Your task to perform on an android device: Find coffee shops on Maps Image 0: 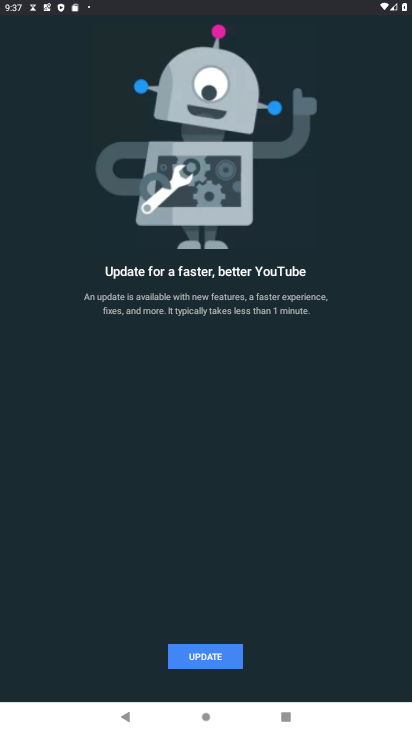
Step 0: press home button
Your task to perform on an android device: Find coffee shops on Maps Image 1: 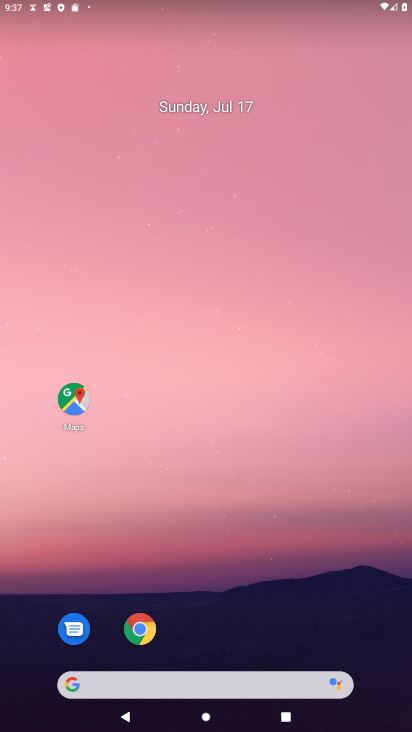
Step 1: drag from (238, 698) to (234, 55)
Your task to perform on an android device: Find coffee shops on Maps Image 2: 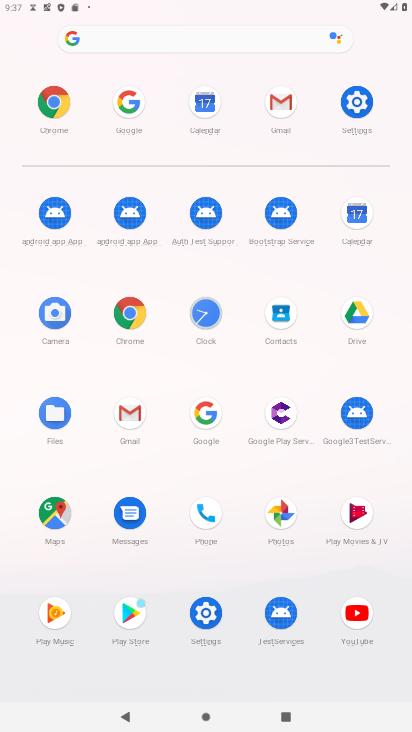
Step 2: click (55, 517)
Your task to perform on an android device: Find coffee shops on Maps Image 3: 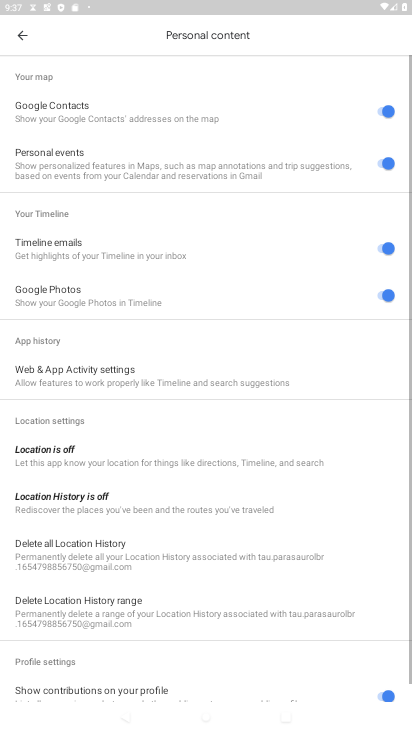
Step 3: click (23, 32)
Your task to perform on an android device: Find coffee shops on Maps Image 4: 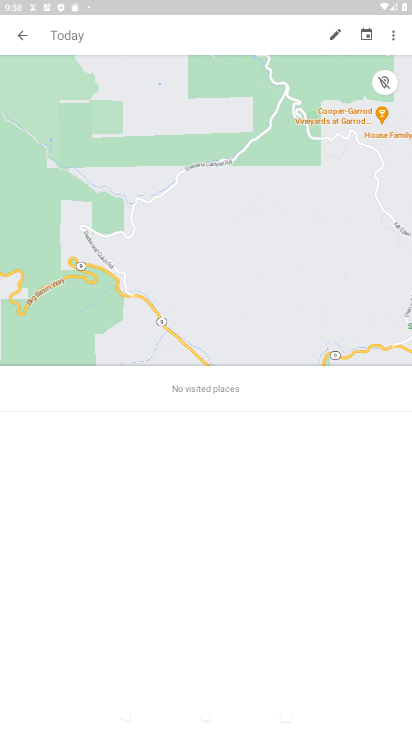
Step 4: click (20, 36)
Your task to perform on an android device: Find coffee shops on Maps Image 5: 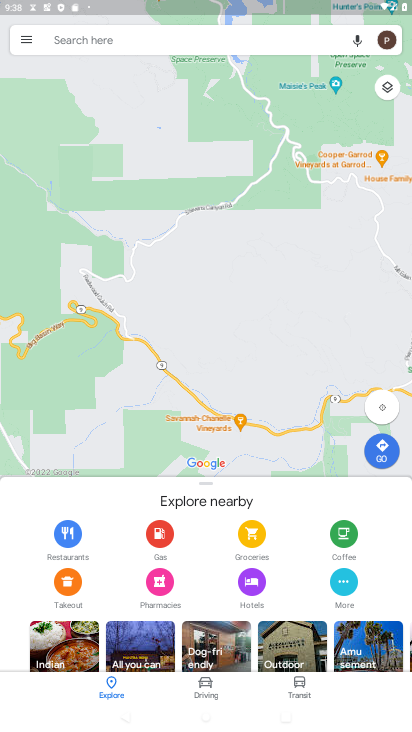
Step 5: click (238, 39)
Your task to perform on an android device: Find coffee shops on Maps Image 6: 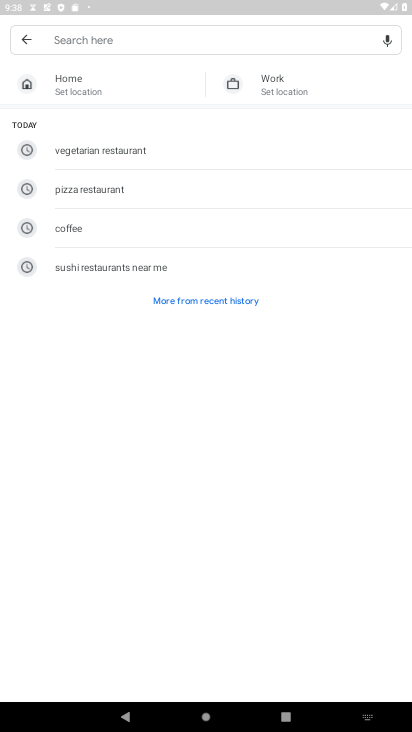
Step 6: type "coffee shops "
Your task to perform on an android device: Find coffee shops on Maps Image 7: 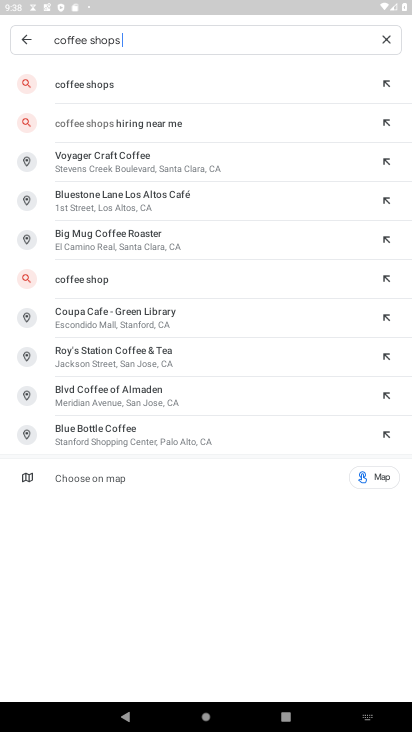
Step 7: click (92, 81)
Your task to perform on an android device: Find coffee shops on Maps Image 8: 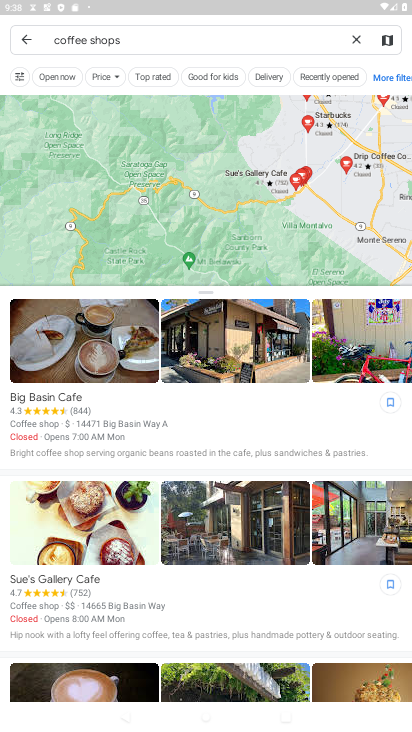
Step 8: task complete